Your task to perform on an android device: change the upload size in google photos Image 0: 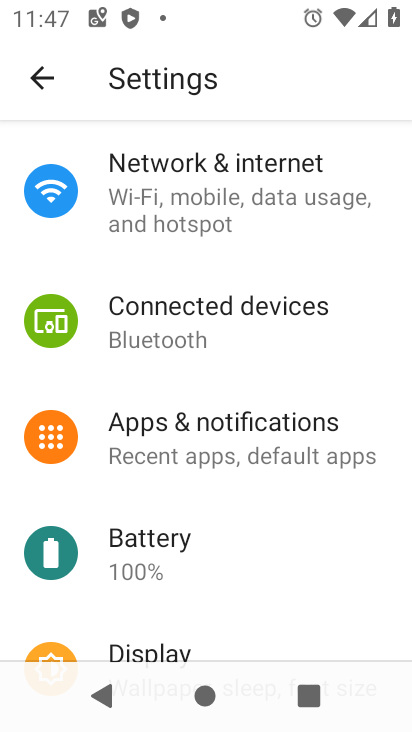
Step 0: press home button
Your task to perform on an android device: change the upload size in google photos Image 1: 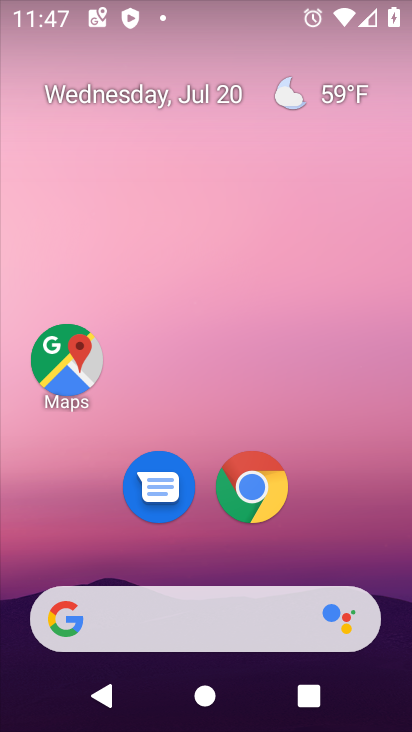
Step 1: drag from (373, 544) to (410, 452)
Your task to perform on an android device: change the upload size in google photos Image 2: 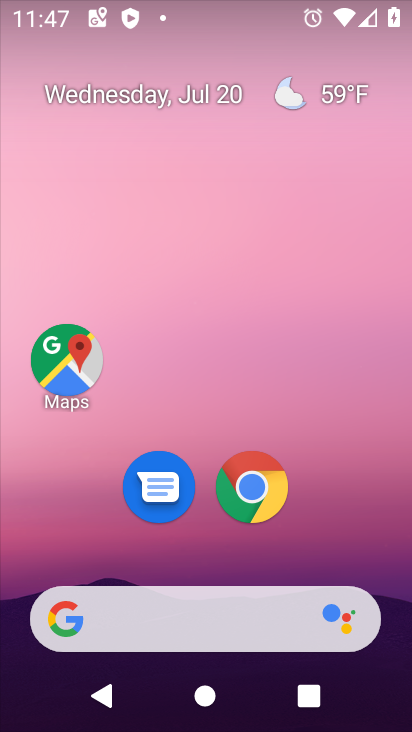
Step 2: drag from (360, 510) to (361, 53)
Your task to perform on an android device: change the upload size in google photos Image 3: 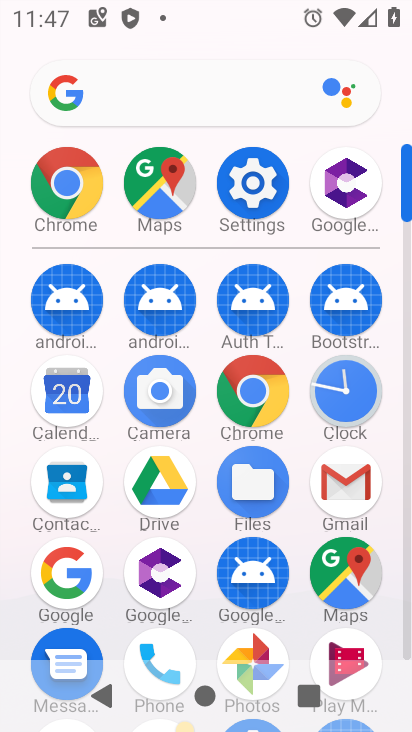
Step 3: drag from (391, 533) to (399, 251)
Your task to perform on an android device: change the upload size in google photos Image 4: 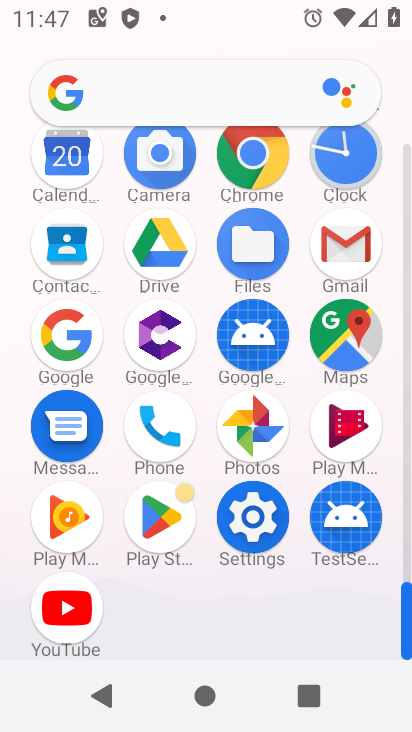
Step 4: click (267, 423)
Your task to perform on an android device: change the upload size in google photos Image 5: 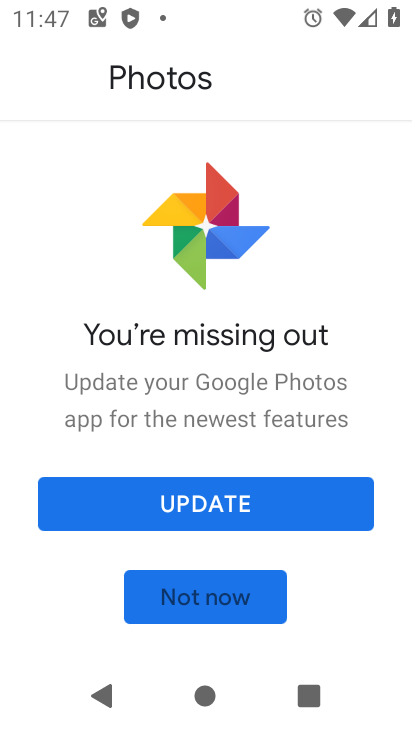
Step 5: click (208, 500)
Your task to perform on an android device: change the upload size in google photos Image 6: 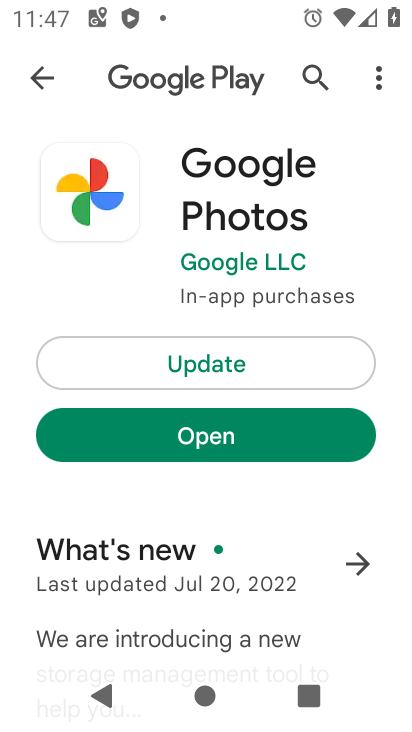
Step 6: click (242, 364)
Your task to perform on an android device: change the upload size in google photos Image 7: 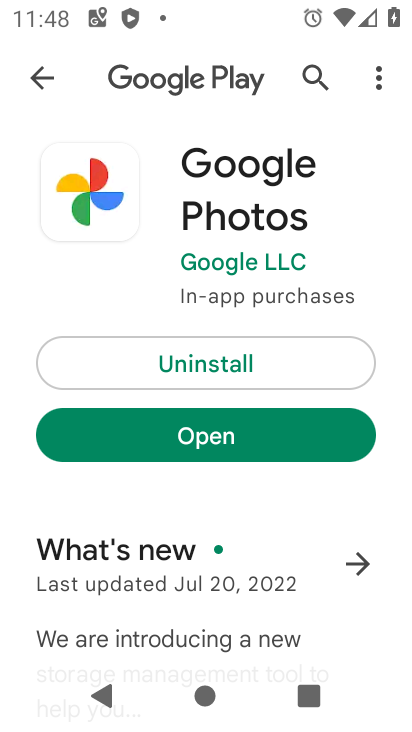
Step 7: click (362, 438)
Your task to perform on an android device: change the upload size in google photos Image 8: 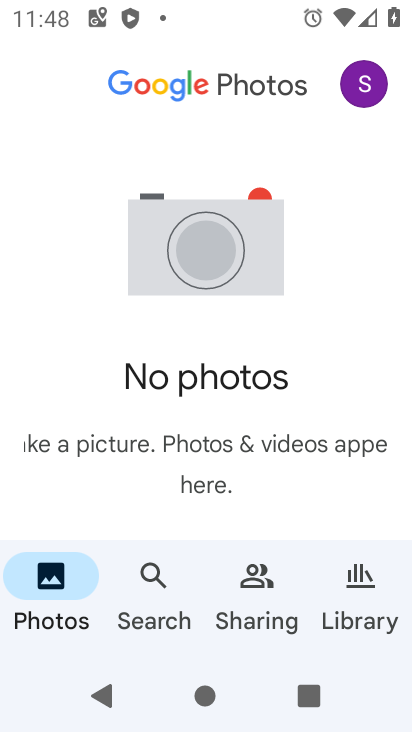
Step 8: click (370, 89)
Your task to perform on an android device: change the upload size in google photos Image 9: 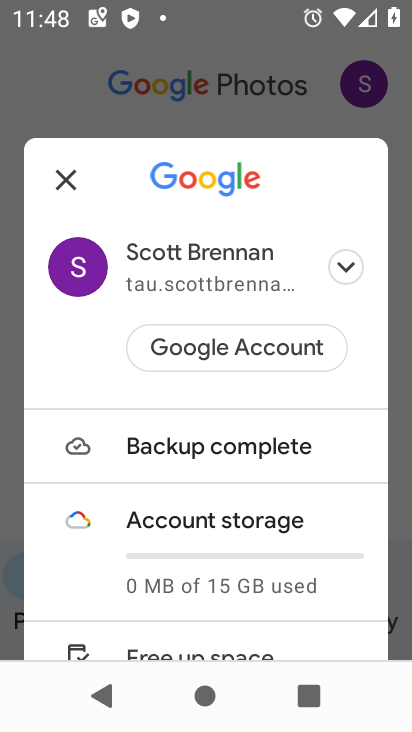
Step 9: drag from (356, 485) to (355, 326)
Your task to perform on an android device: change the upload size in google photos Image 10: 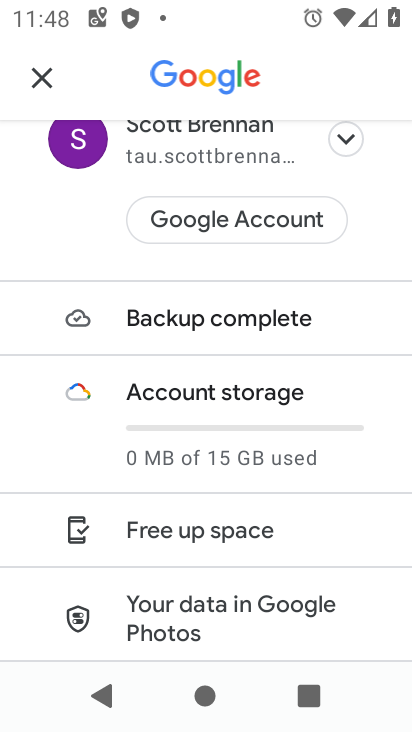
Step 10: drag from (328, 518) to (336, 325)
Your task to perform on an android device: change the upload size in google photos Image 11: 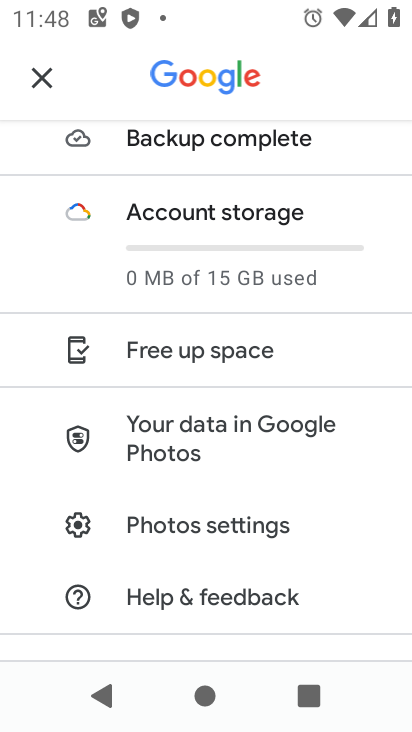
Step 11: drag from (304, 551) to (314, 375)
Your task to perform on an android device: change the upload size in google photos Image 12: 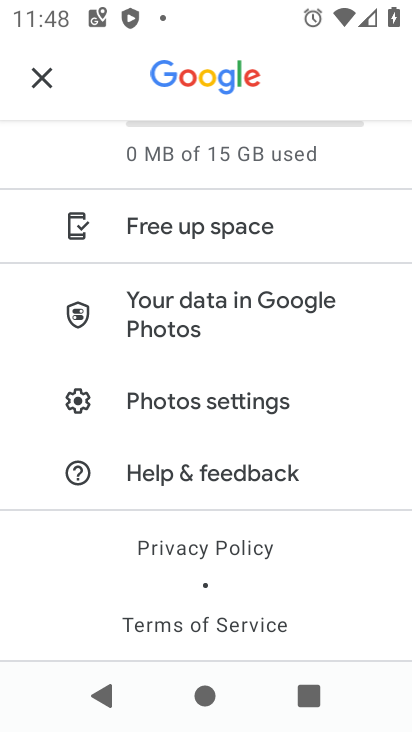
Step 12: click (294, 401)
Your task to perform on an android device: change the upload size in google photos Image 13: 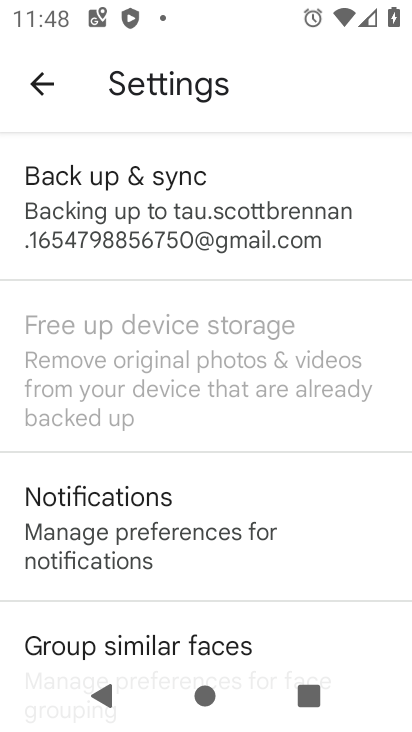
Step 13: click (293, 216)
Your task to perform on an android device: change the upload size in google photos Image 14: 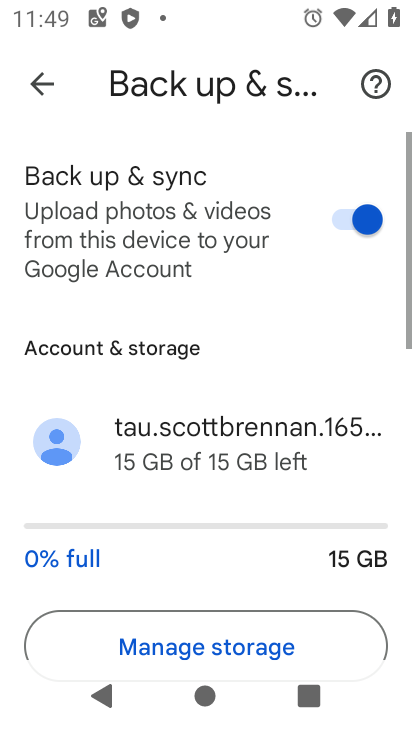
Step 14: drag from (301, 487) to (302, 266)
Your task to perform on an android device: change the upload size in google photos Image 15: 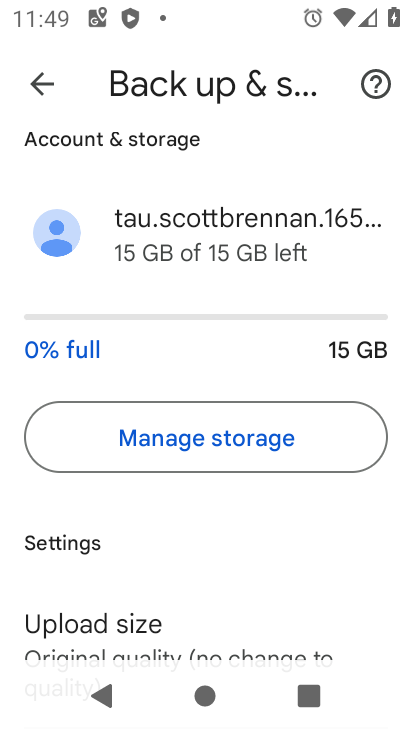
Step 15: drag from (288, 555) to (285, 347)
Your task to perform on an android device: change the upload size in google photos Image 16: 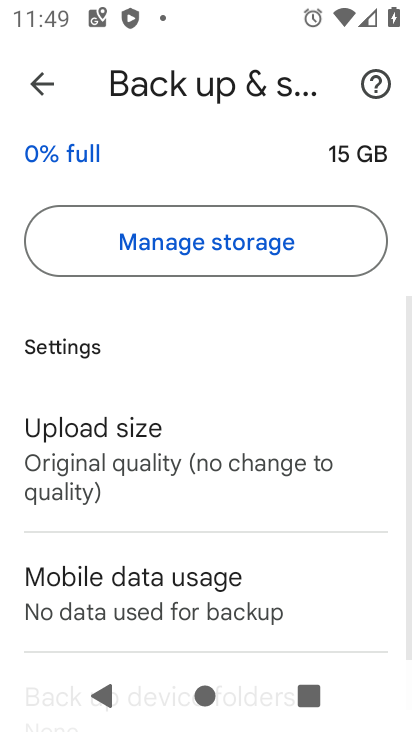
Step 16: click (270, 465)
Your task to perform on an android device: change the upload size in google photos Image 17: 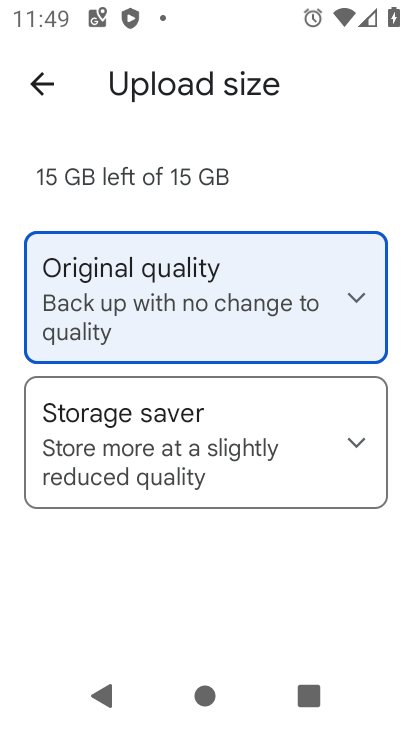
Step 17: click (210, 438)
Your task to perform on an android device: change the upload size in google photos Image 18: 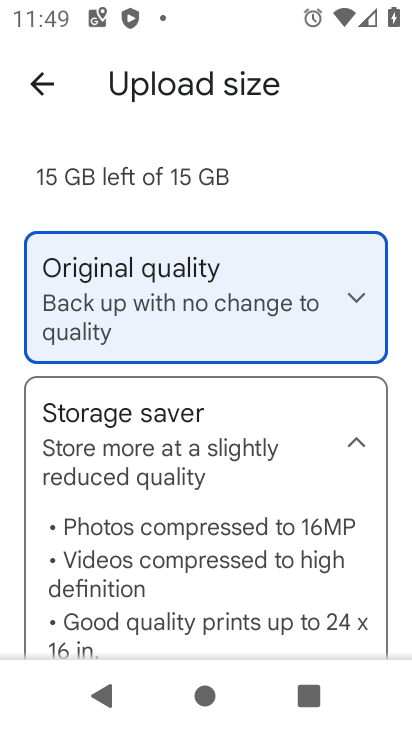
Step 18: click (217, 497)
Your task to perform on an android device: change the upload size in google photos Image 19: 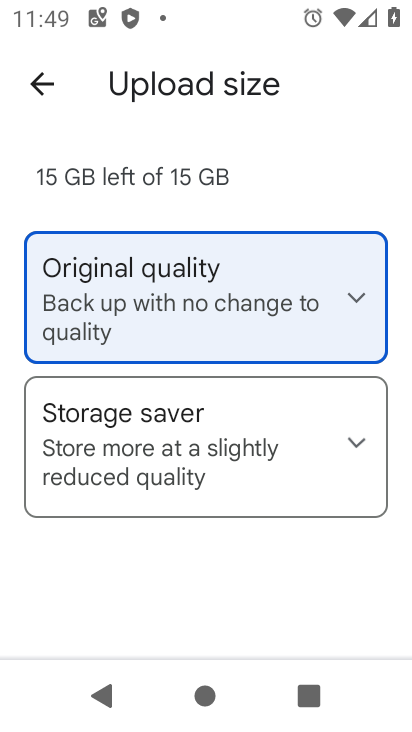
Step 19: drag from (216, 547) to (234, 282)
Your task to perform on an android device: change the upload size in google photos Image 20: 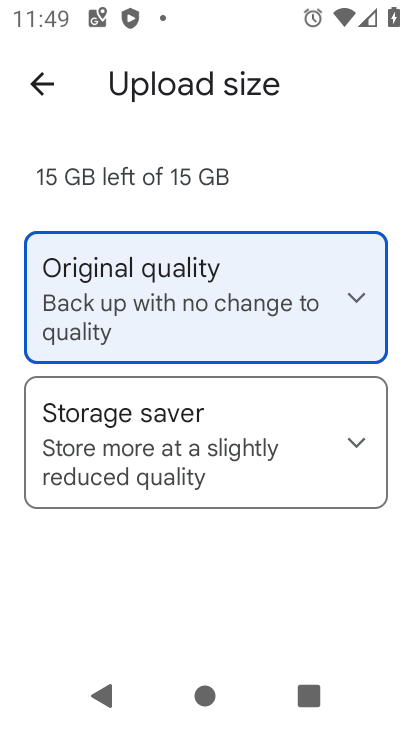
Step 20: click (222, 447)
Your task to perform on an android device: change the upload size in google photos Image 21: 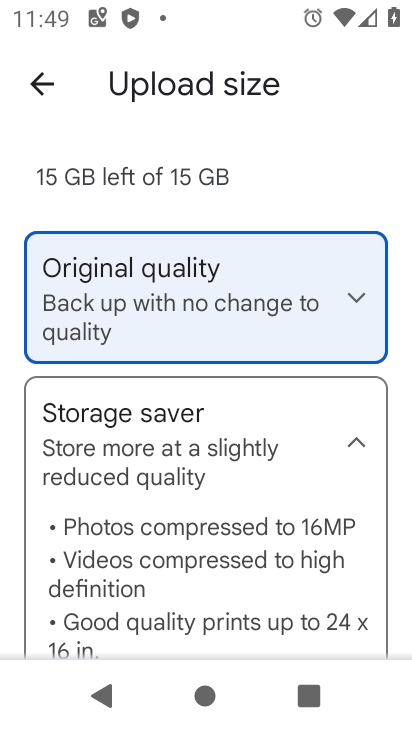
Step 21: drag from (400, 488) to (406, 299)
Your task to perform on an android device: change the upload size in google photos Image 22: 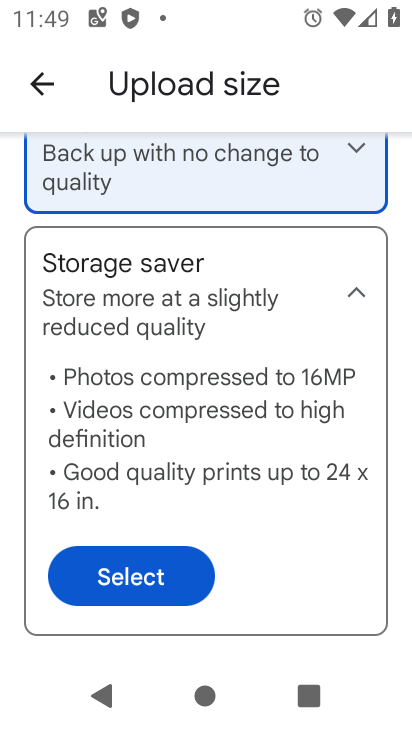
Step 22: click (158, 581)
Your task to perform on an android device: change the upload size in google photos Image 23: 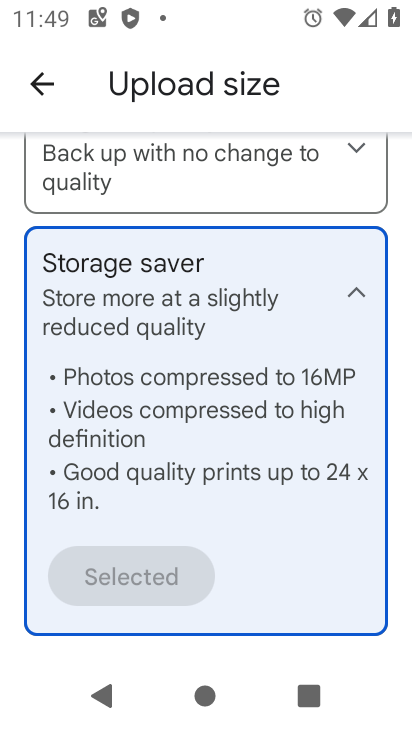
Step 23: task complete